Your task to perform on an android device: show emergency info Image 0: 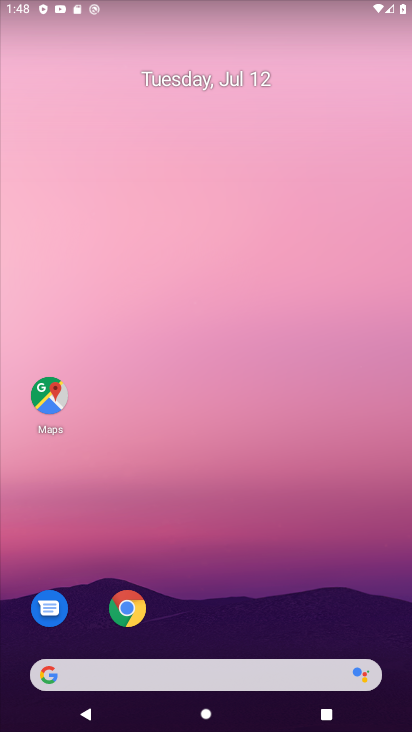
Step 0: drag from (297, 454) to (272, 217)
Your task to perform on an android device: show emergency info Image 1: 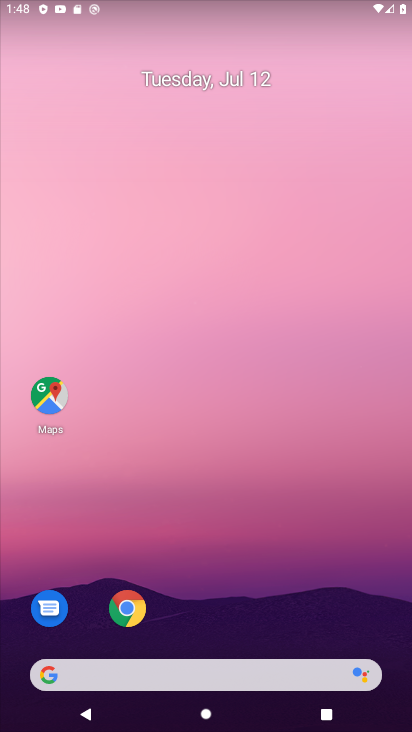
Step 1: drag from (293, 597) to (271, 102)
Your task to perform on an android device: show emergency info Image 2: 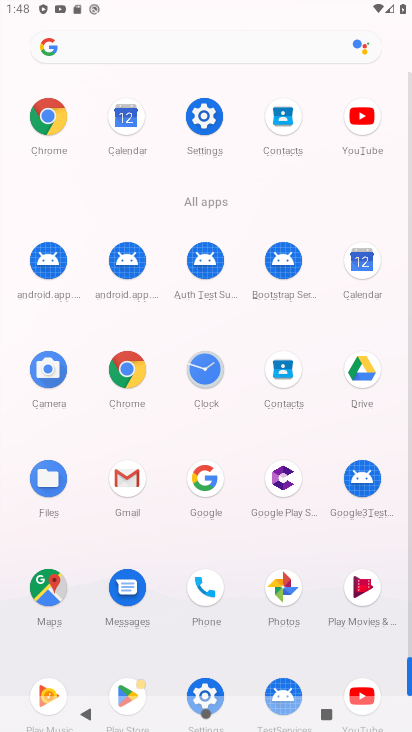
Step 2: click (209, 109)
Your task to perform on an android device: show emergency info Image 3: 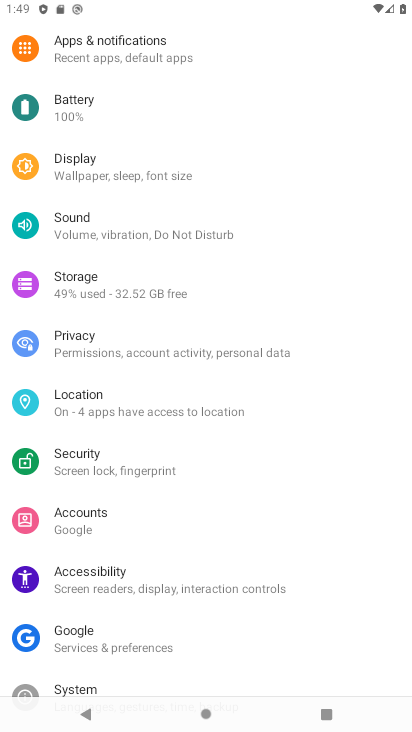
Step 3: drag from (190, 667) to (226, 27)
Your task to perform on an android device: show emergency info Image 4: 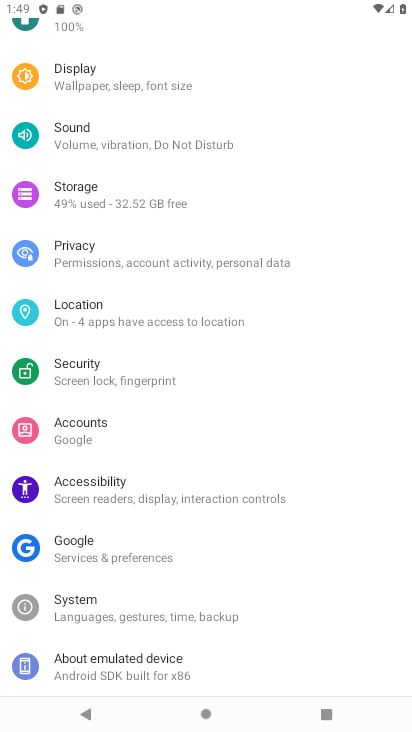
Step 4: click (152, 684)
Your task to perform on an android device: show emergency info Image 5: 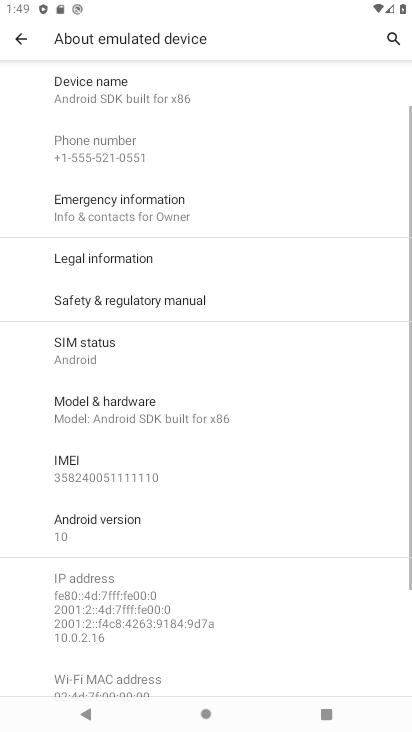
Step 5: click (195, 207)
Your task to perform on an android device: show emergency info Image 6: 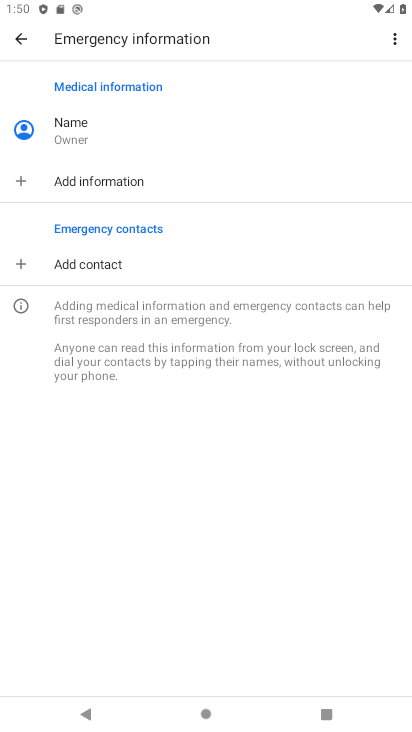
Step 6: task complete